Your task to perform on an android device: turn off data saver in the chrome app Image 0: 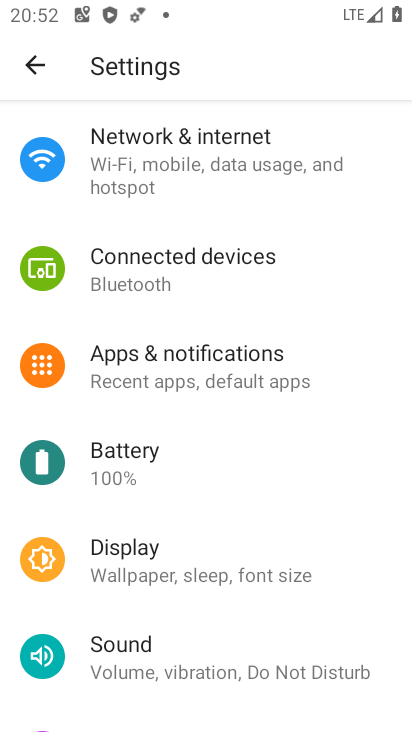
Step 0: press home button
Your task to perform on an android device: turn off data saver in the chrome app Image 1: 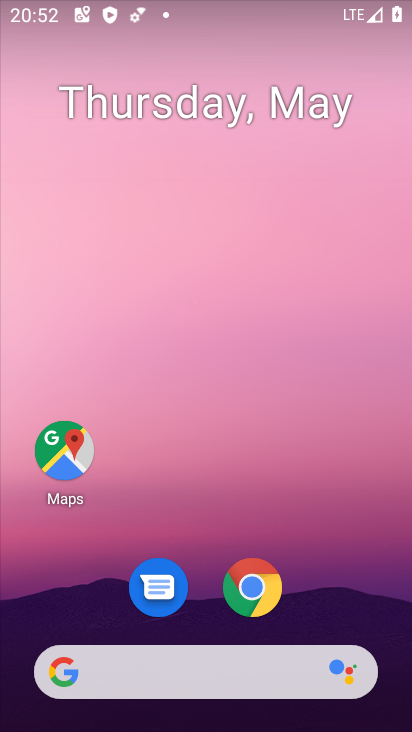
Step 1: click (260, 611)
Your task to perform on an android device: turn off data saver in the chrome app Image 2: 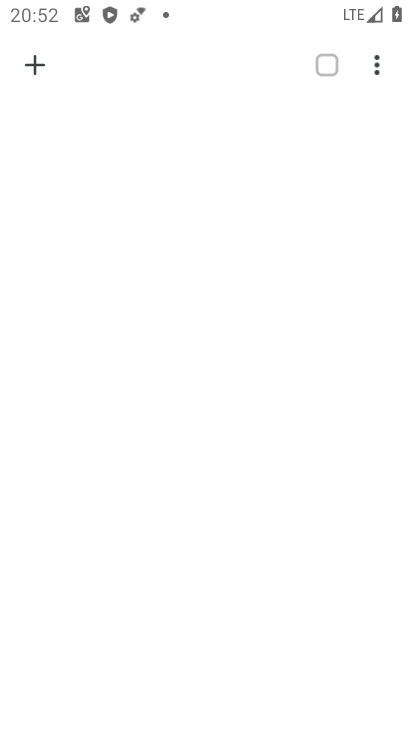
Step 2: click (386, 73)
Your task to perform on an android device: turn off data saver in the chrome app Image 3: 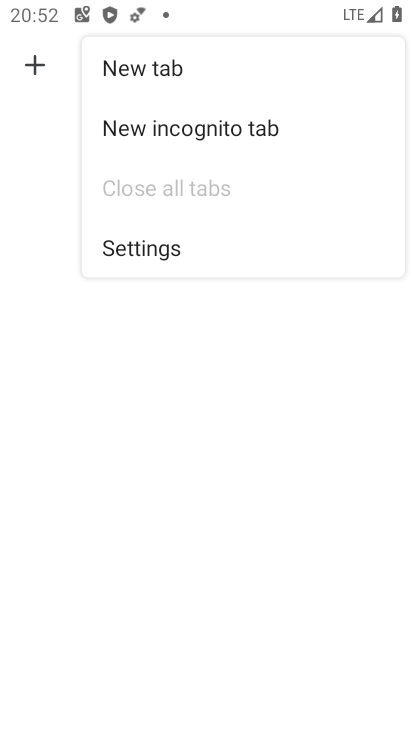
Step 3: click (165, 256)
Your task to perform on an android device: turn off data saver in the chrome app Image 4: 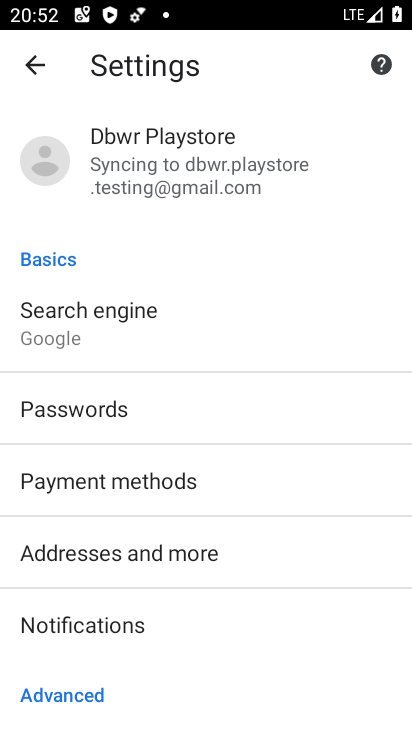
Step 4: drag from (247, 649) to (234, 285)
Your task to perform on an android device: turn off data saver in the chrome app Image 5: 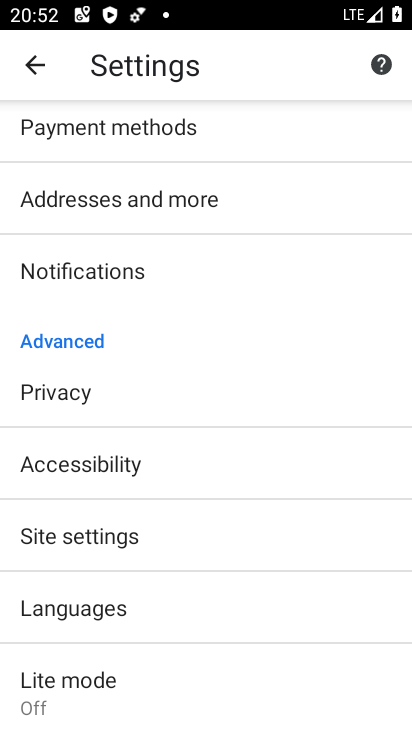
Step 5: click (141, 690)
Your task to perform on an android device: turn off data saver in the chrome app Image 6: 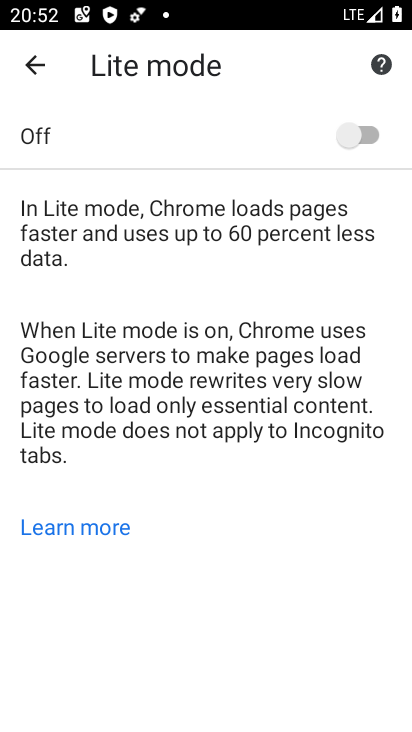
Step 6: task complete